Your task to perform on an android device: turn on airplane mode Image 0: 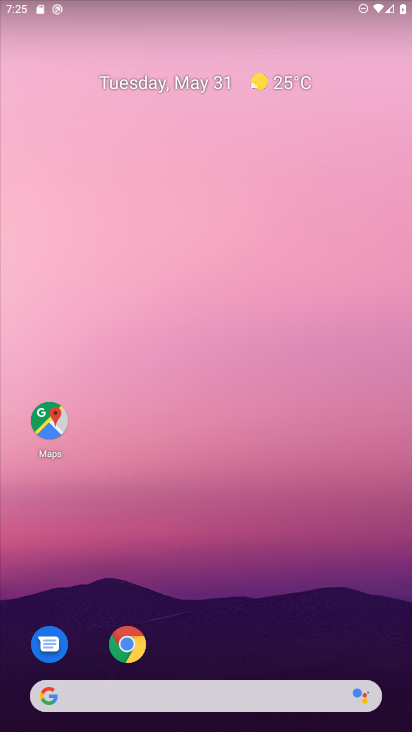
Step 0: drag from (279, 721) to (296, 233)
Your task to perform on an android device: turn on airplane mode Image 1: 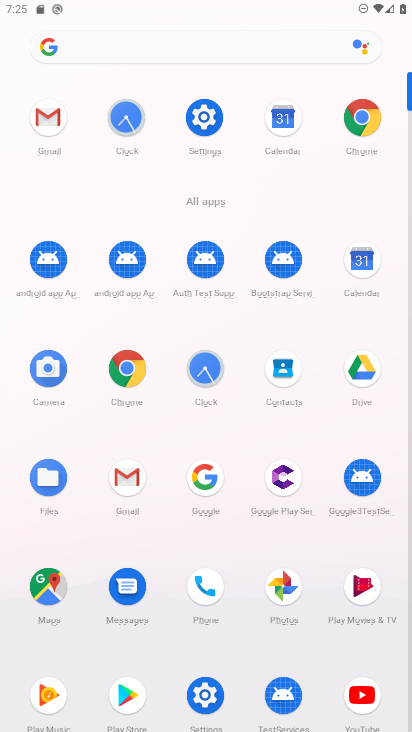
Step 1: click (208, 114)
Your task to perform on an android device: turn on airplane mode Image 2: 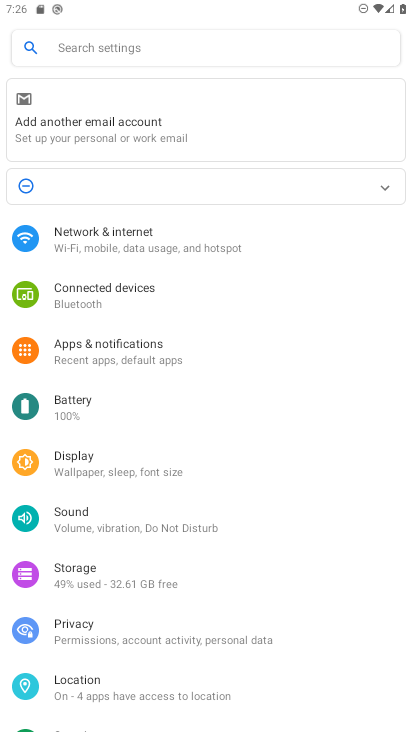
Step 2: click (118, 238)
Your task to perform on an android device: turn on airplane mode Image 3: 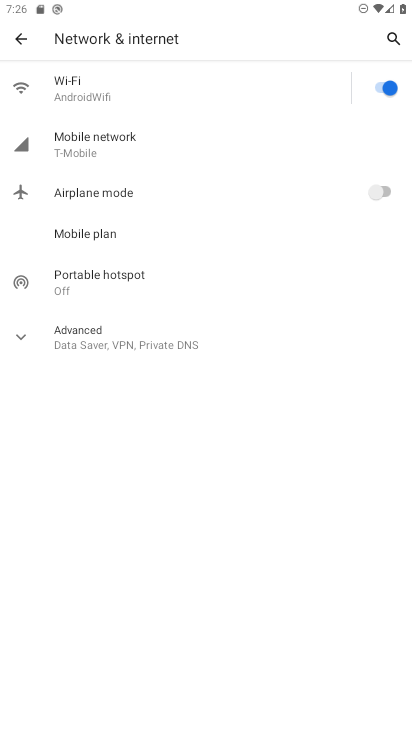
Step 3: click (382, 186)
Your task to perform on an android device: turn on airplane mode Image 4: 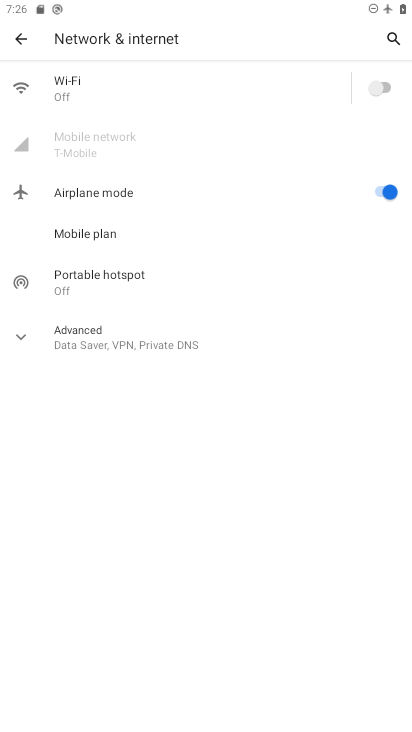
Step 4: task complete